Your task to perform on an android device: Open Google Maps Image 0: 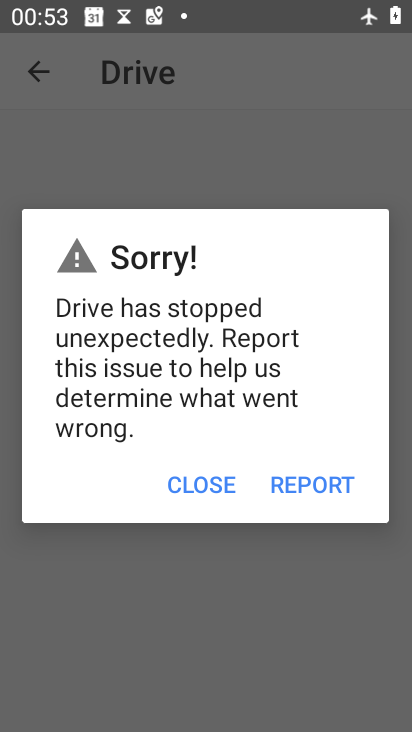
Step 0: press home button
Your task to perform on an android device: Open Google Maps Image 1: 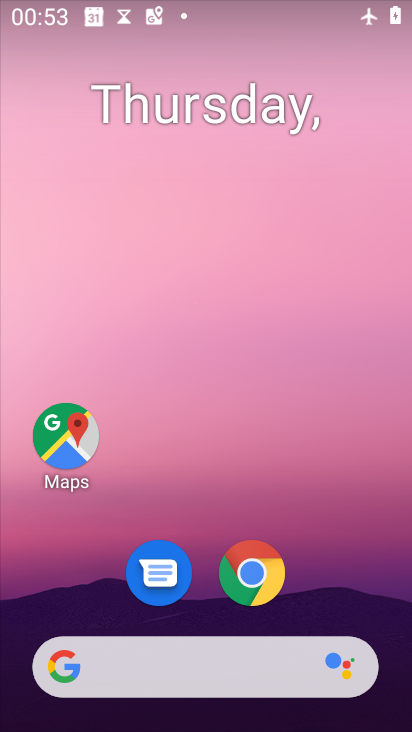
Step 1: click (49, 421)
Your task to perform on an android device: Open Google Maps Image 2: 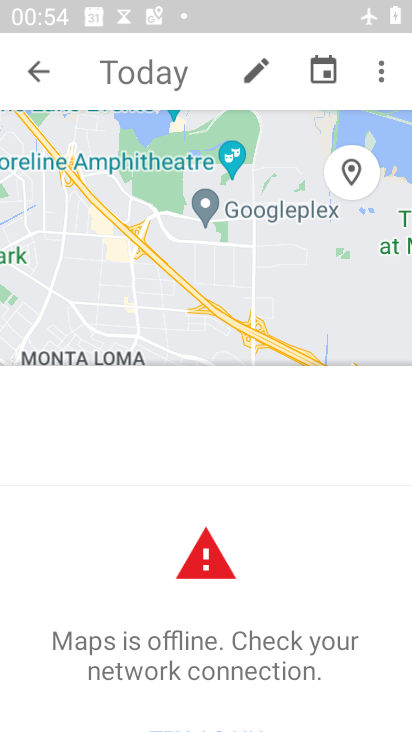
Step 2: task complete